Your task to perform on an android device: Open Google Chrome and click the shortcut for Amazon.com Image 0: 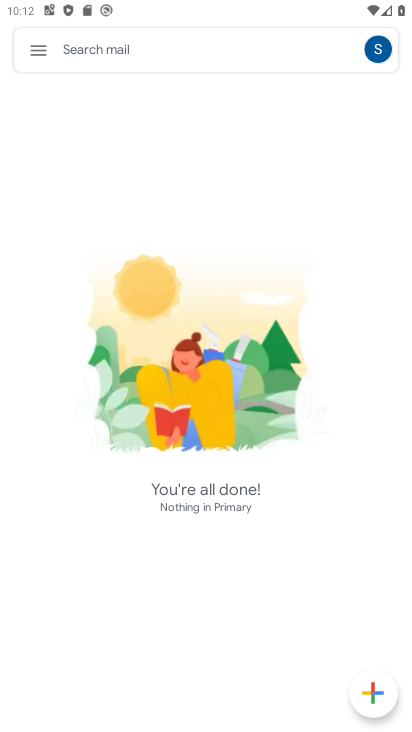
Step 0: press home button
Your task to perform on an android device: Open Google Chrome and click the shortcut for Amazon.com Image 1: 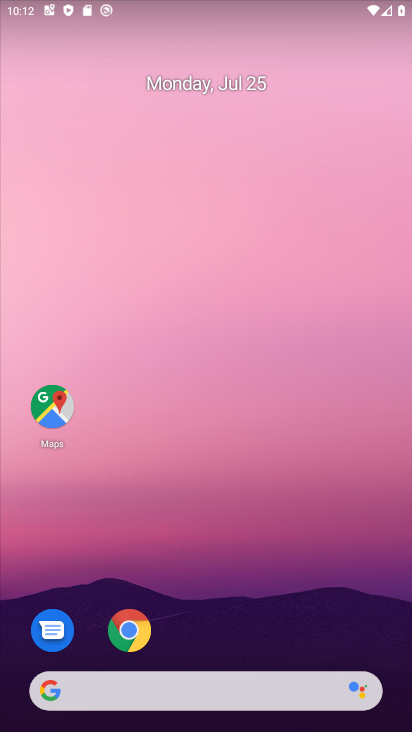
Step 1: drag from (347, 626) to (372, 174)
Your task to perform on an android device: Open Google Chrome and click the shortcut for Amazon.com Image 2: 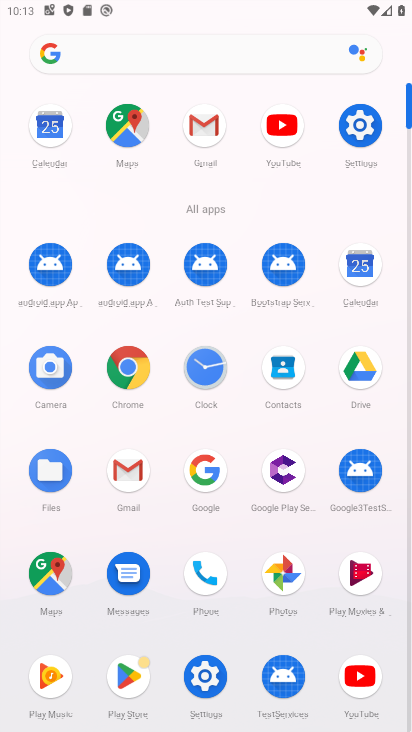
Step 2: click (132, 369)
Your task to perform on an android device: Open Google Chrome and click the shortcut for Amazon.com Image 3: 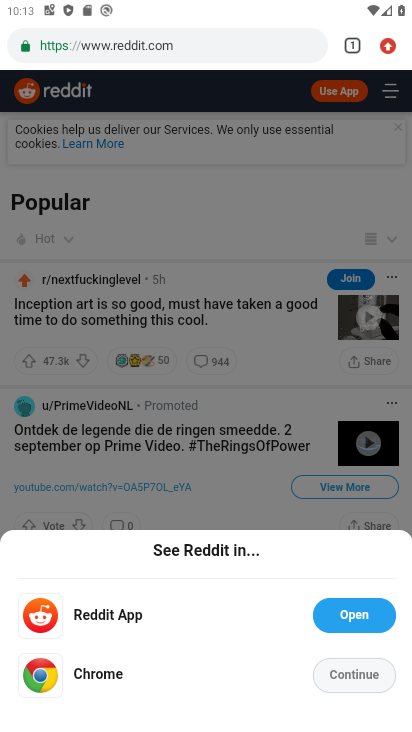
Step 3: press back button
Your task to perform on an android device: Open Google Chrome and click the shortcut for Amazon.com Image 4: 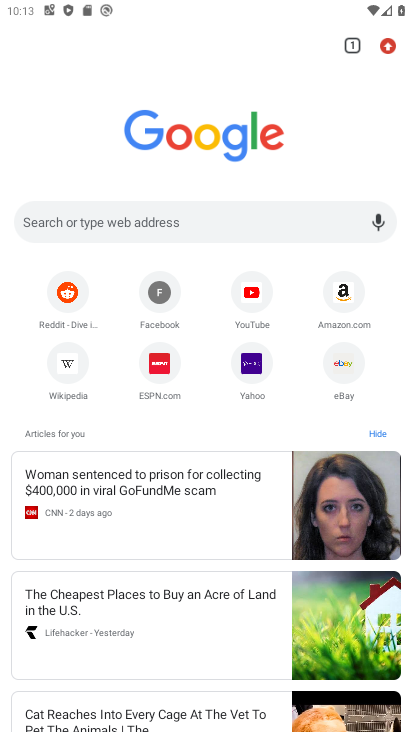
Step 4: click (345, 303)
Your task to perform on an android device: Open Google Chrome and click the shortcut for Amazon.com Image 5: 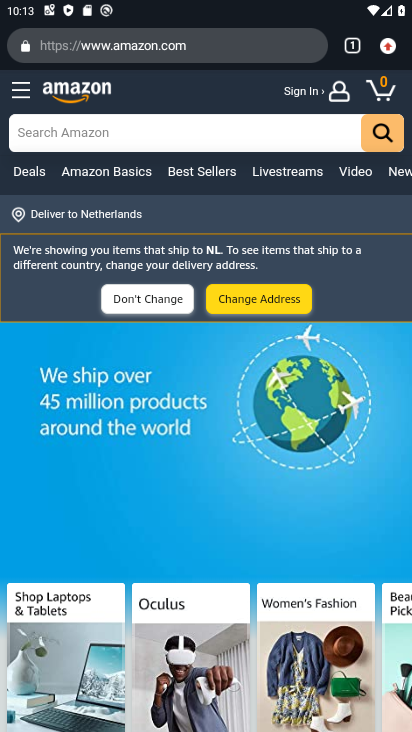
Step 5: task complete